Your task to perform on an android device: Open settings on Google Maps Image 0: 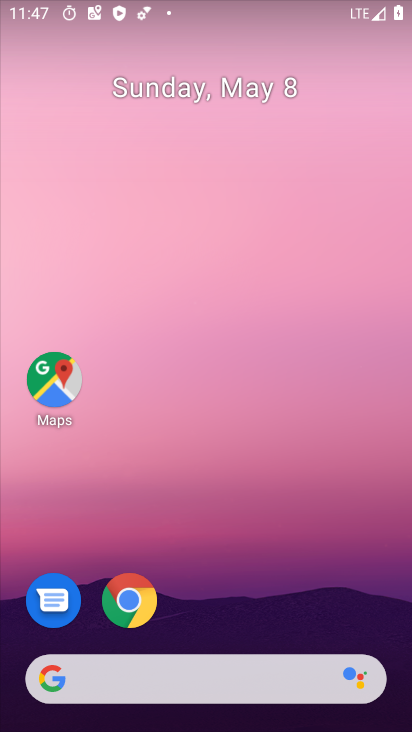
Step 0: click (40, 397)
Your task to perform on an android device: Open settings on Google Maps Image 1: 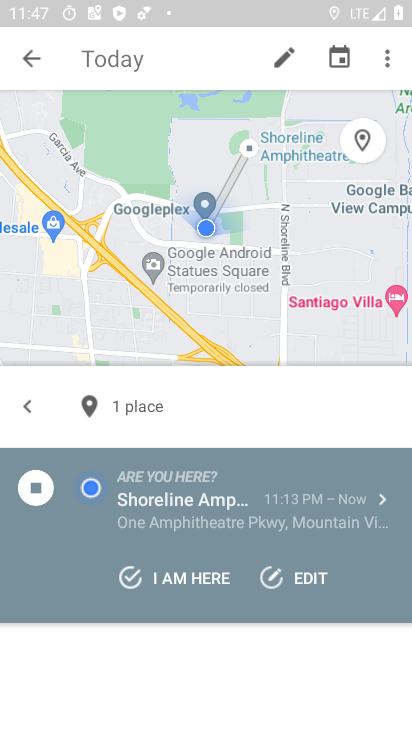
Step 1: click (17, 52)
Your task to perform on an android device: Open settings on Google Maps Image 2: 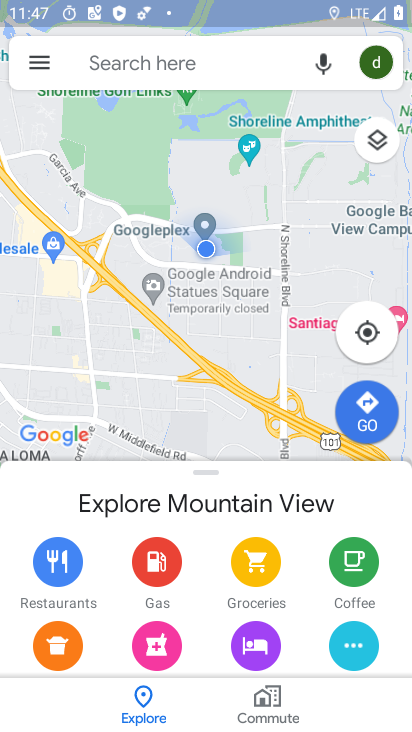
Step 2: click (34, 65)
Your task to perform on an android device: Open settings on Google Maps Image 3: 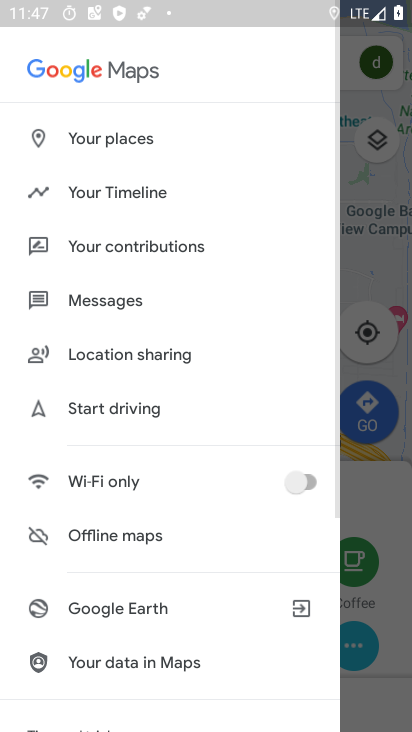
Step 3: drag from (153, 589) to (175, 275)
Your task to perform on an android device: Open settings on Google Maps Image 4: 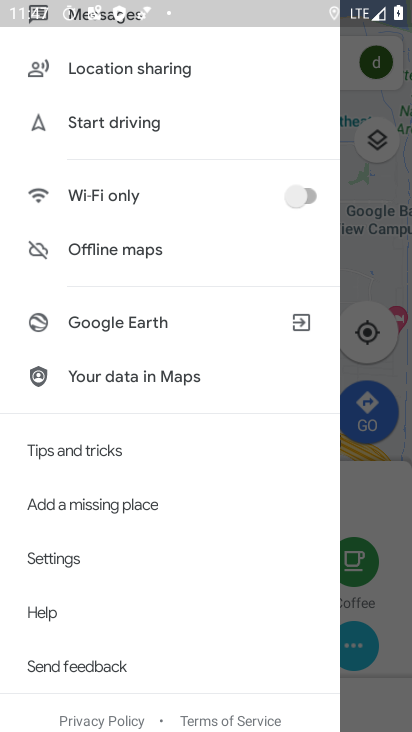
Step 4: click (150, 570)
Your task to perform on an android device: Open settings on Google Maps Image 5: 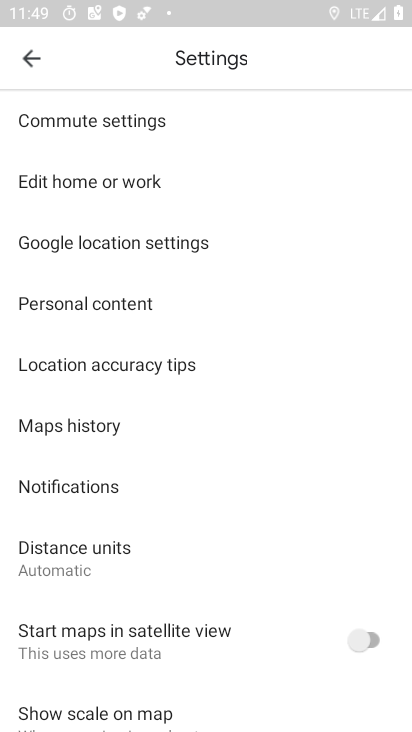
Step 5: task complete